Your task to perform on an android device: Empty the shopping cart on walmart.com. Add logitech g903 to the cart on walmart.com, then select checkout. Image 0: 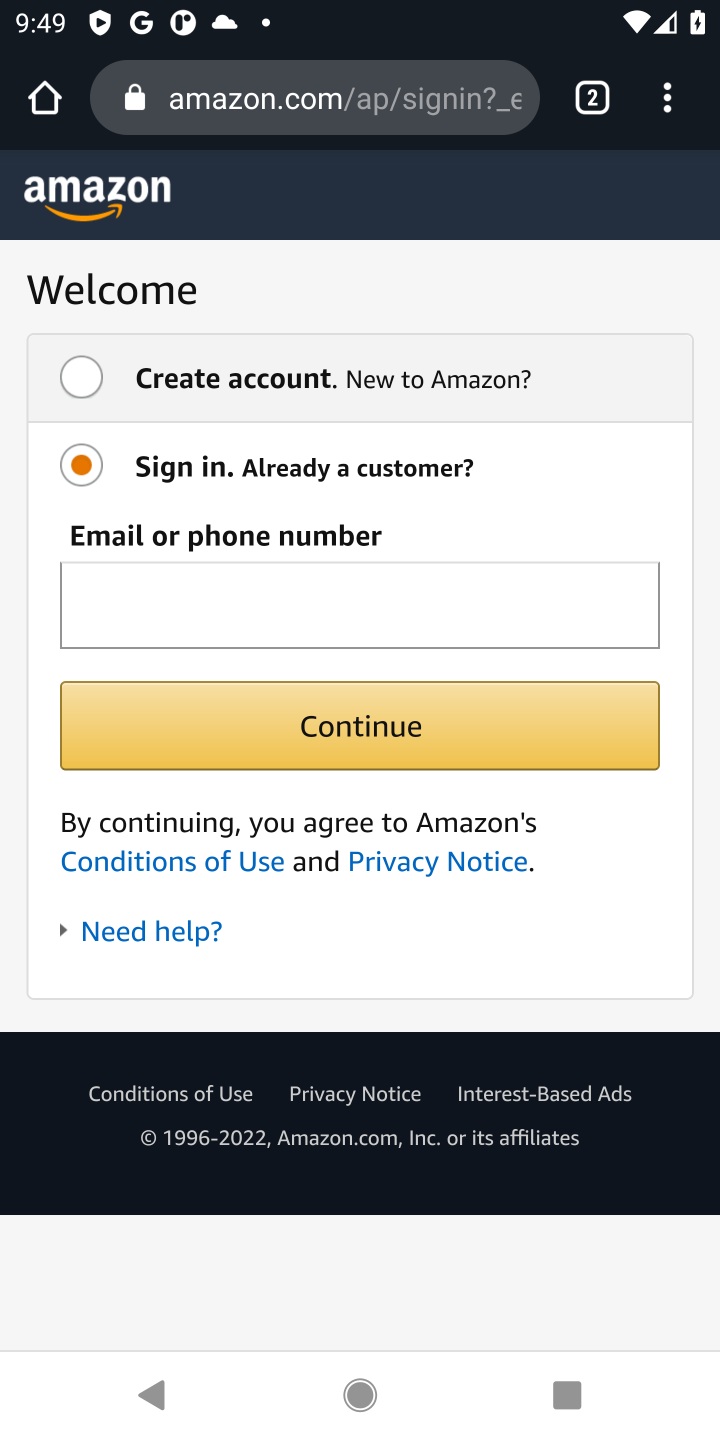
Step 0: click (262, 97)
Your task to perform on an android device: Empty the shopping cart on walmart.com. Add logitech g903 to the cart on walmart.com, then select checkout. Image 1: 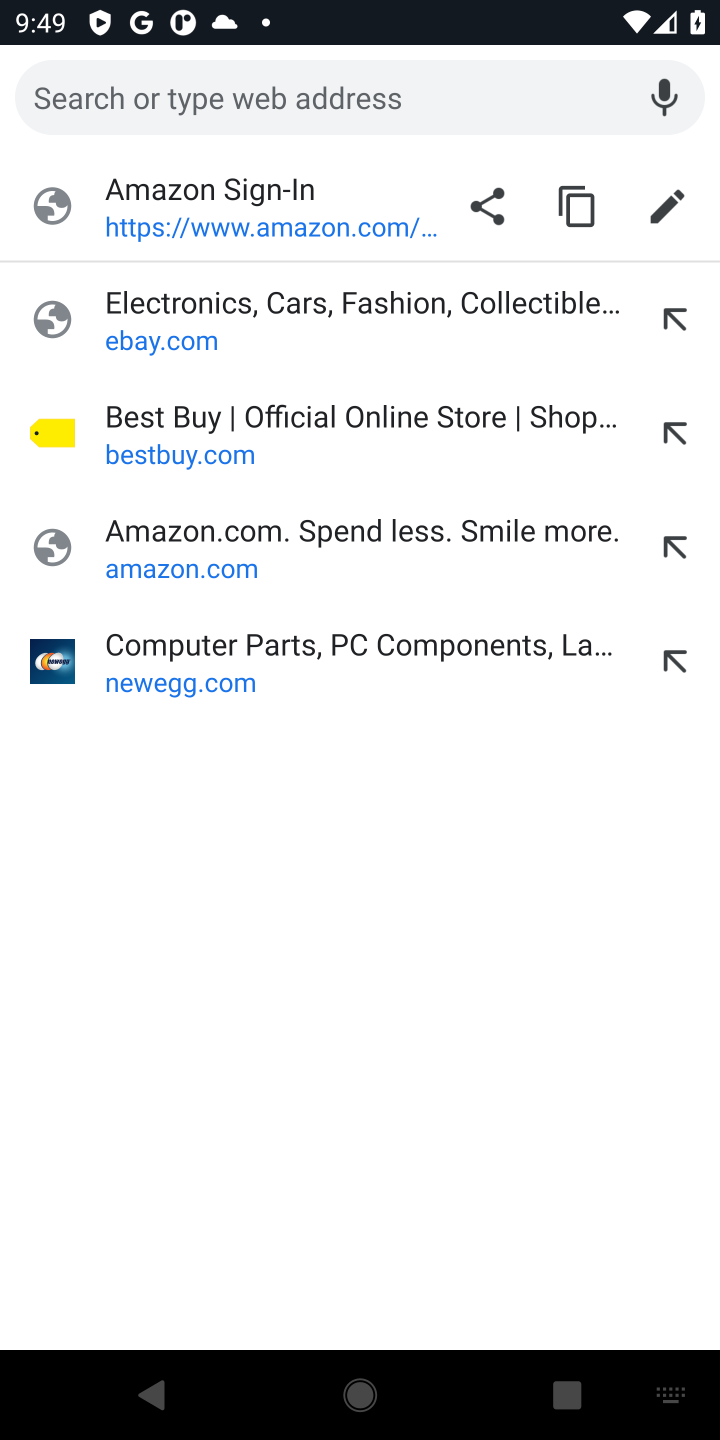
Step 1: type "walmart.com"
Your task to perform on an android device: Empty the shopping cart on walmart.com. Add logitech g903 to the cart on walmart.com, then select checkout. Image 2: 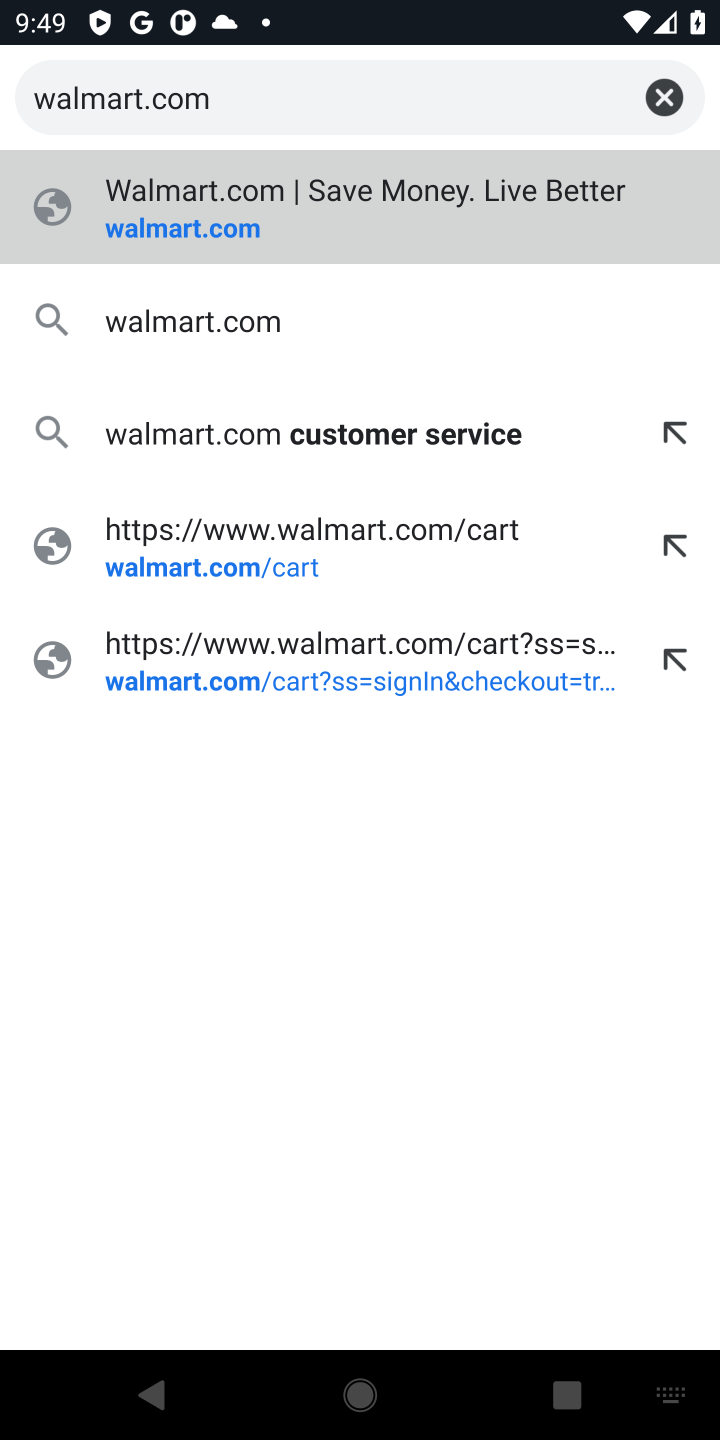
Step 2: press enter
Your task to perform on an android device: Empty the shopping cart on walmart.com. Add logitech g903 to the cart on walmart.com, then select checkout. Image 3: 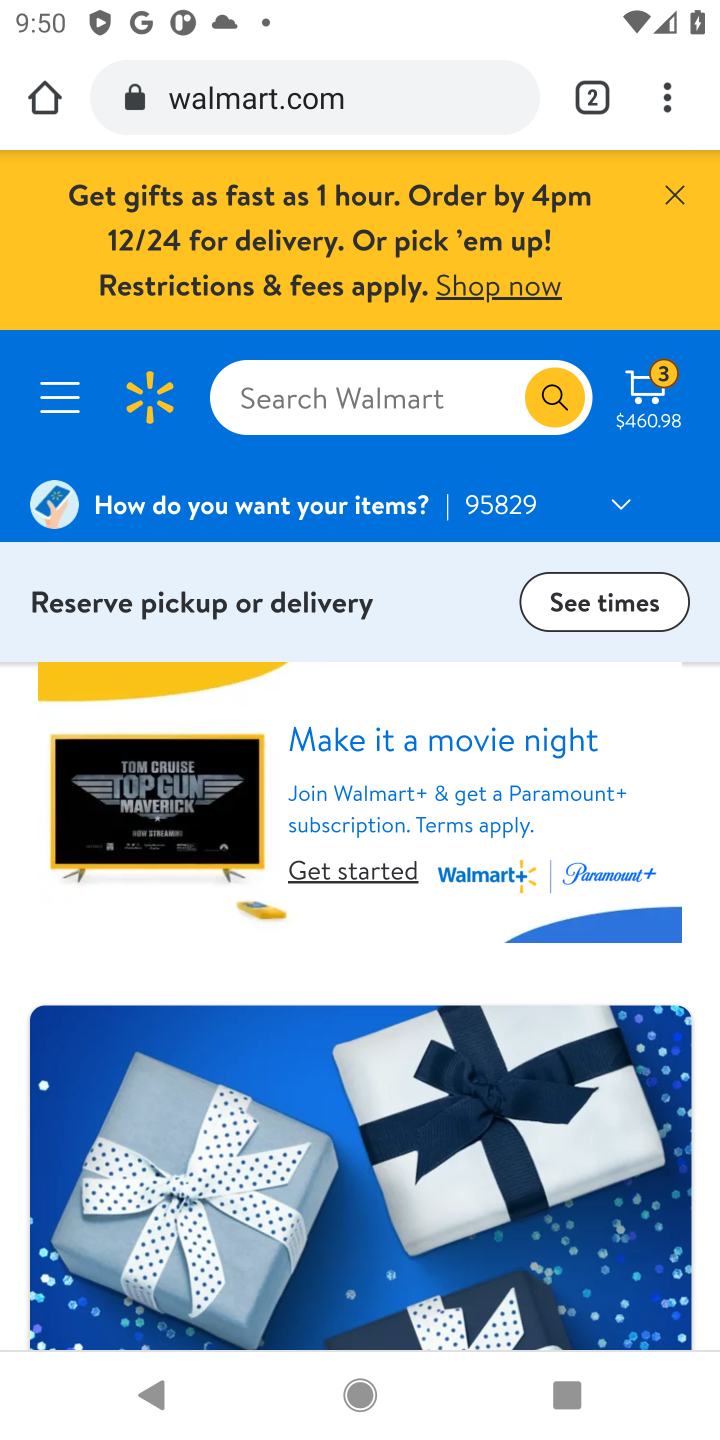
Step 3: click (636, 408)
Your task to perform on an android device: Empty the shopping cart on walmart.com. Add logitech g903 to the cart on walmart.com, then select checkout. Image 4: 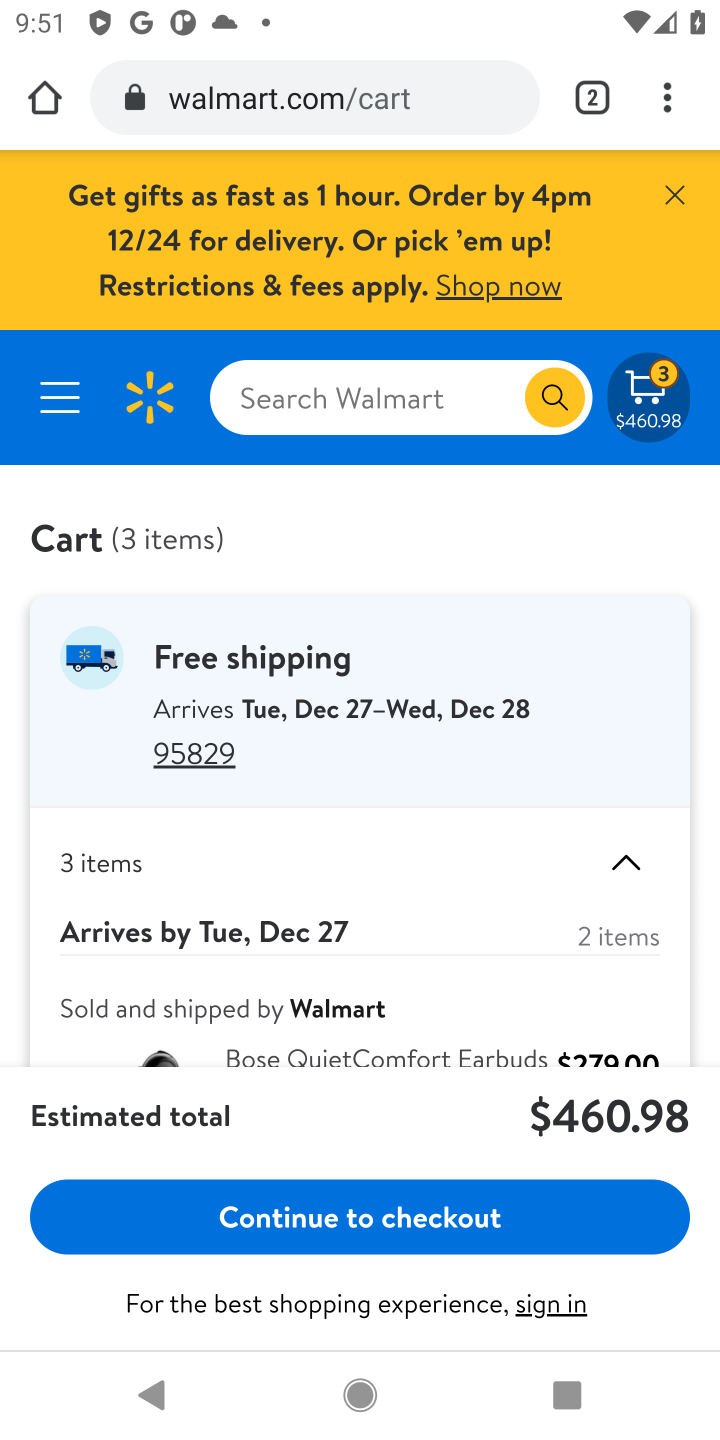
Step 4: drag from (558, 928) to (564, 520)
Your task to perform on an android device: Empty the shopping cart on walmart.com. Add logitech g903 to the cart on walmart.com, then select checkout. Image 5: 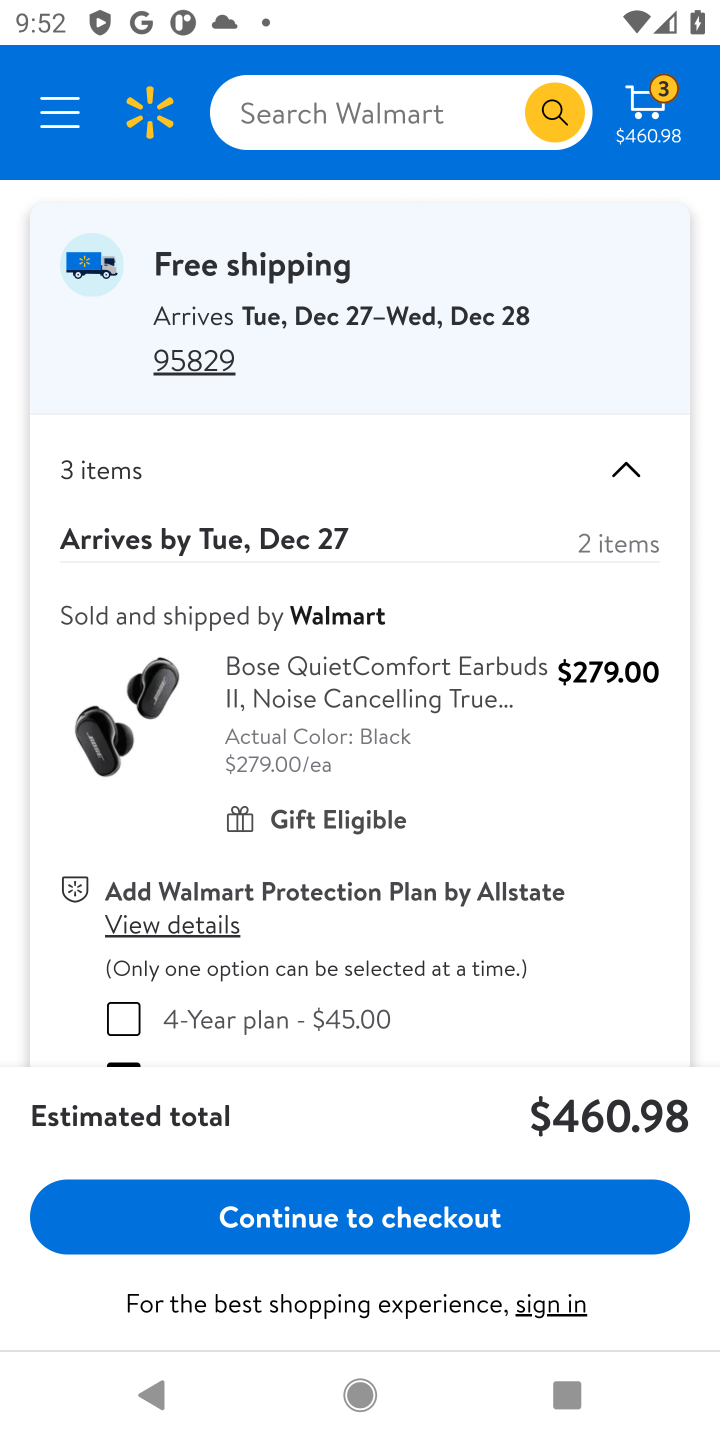
Step 5: drag from (318, 1052) to (315, 588)
Your task to perform on an android device: Empty the shopping cart on walmart.com. Add logitech g903 to the cart on walmart.com, then select checkout. Image 6: 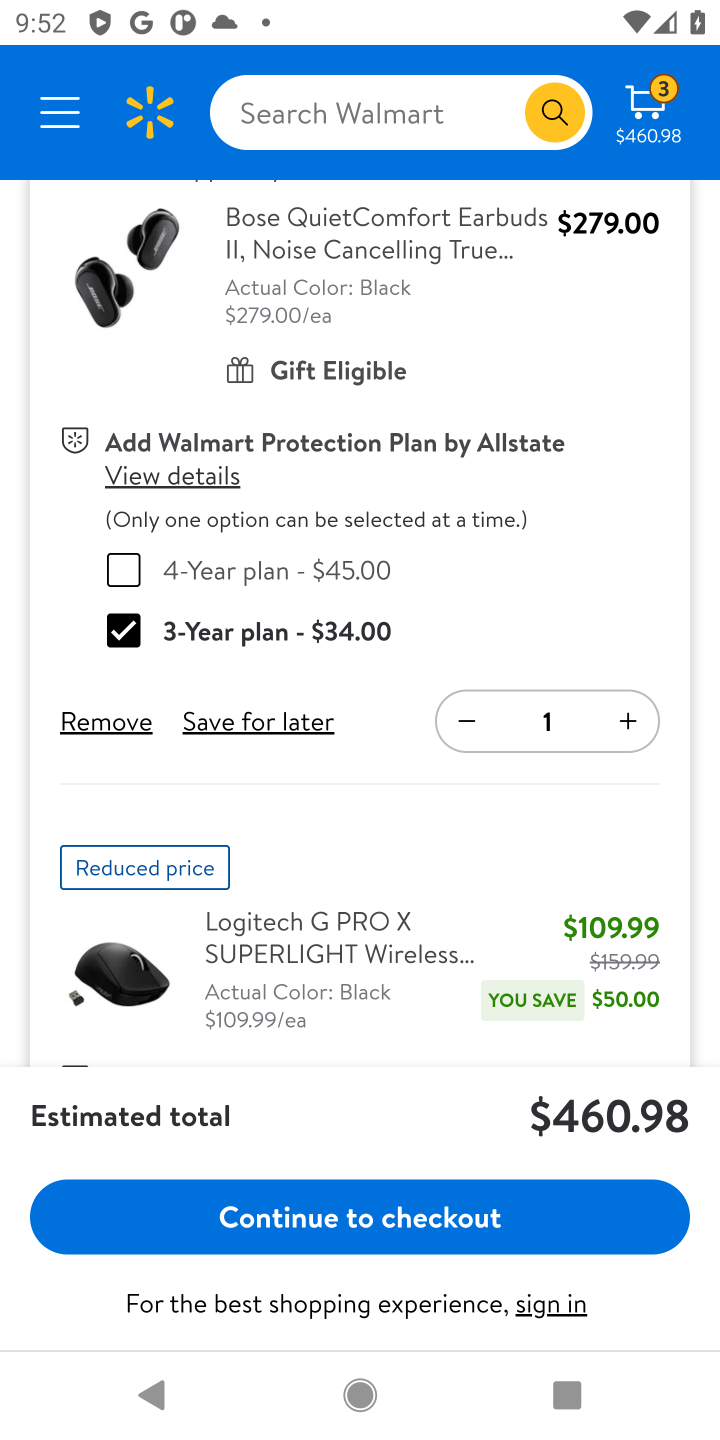
Step 6: click (78, 729)
Your task to perform on an android device: Empty the shopping cart on walmart.com. Add logitech g903 to the cart on walmart.com, then select checkout. Image 7: 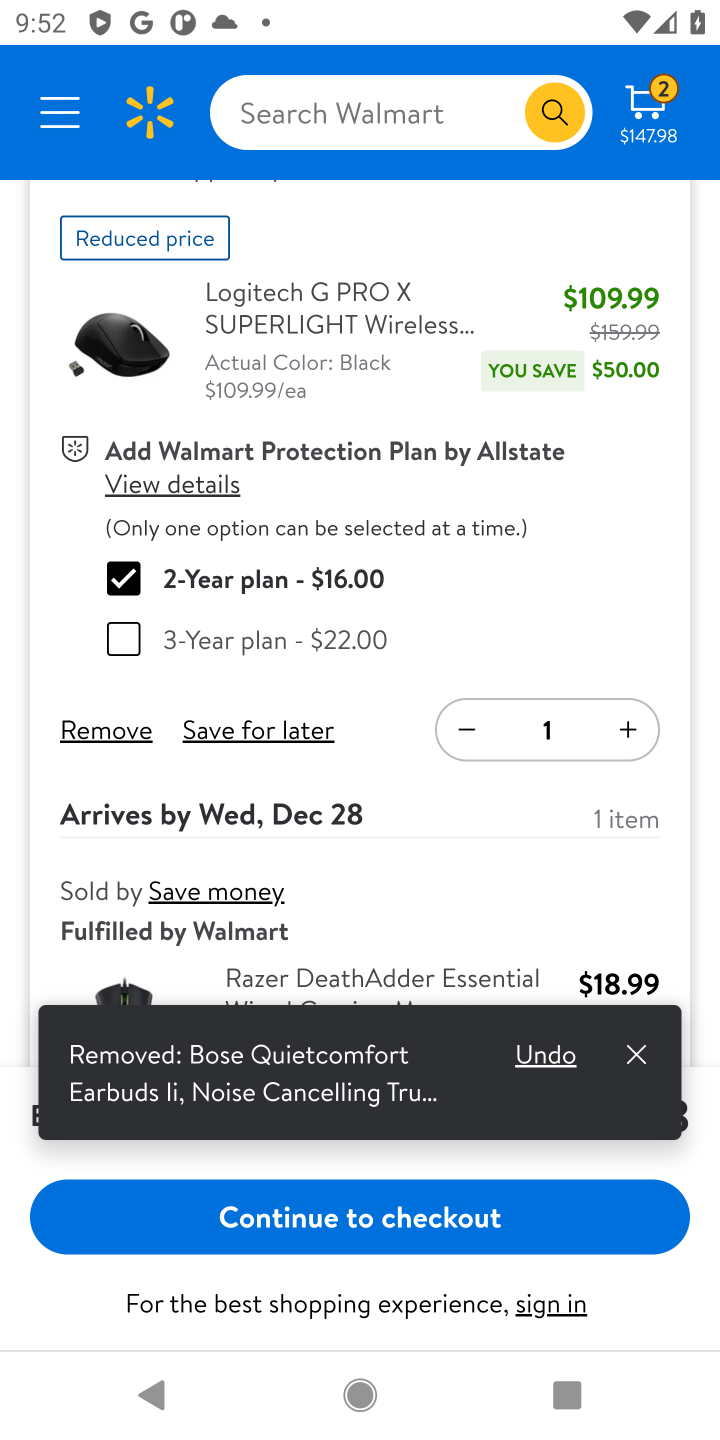
Step 7: click (108, 742)
Your task to perform on an android device: Empty the shopping cart on walmart.com. Add logitech g903 to the cart on walmart.com, then select checkout. Image 8: 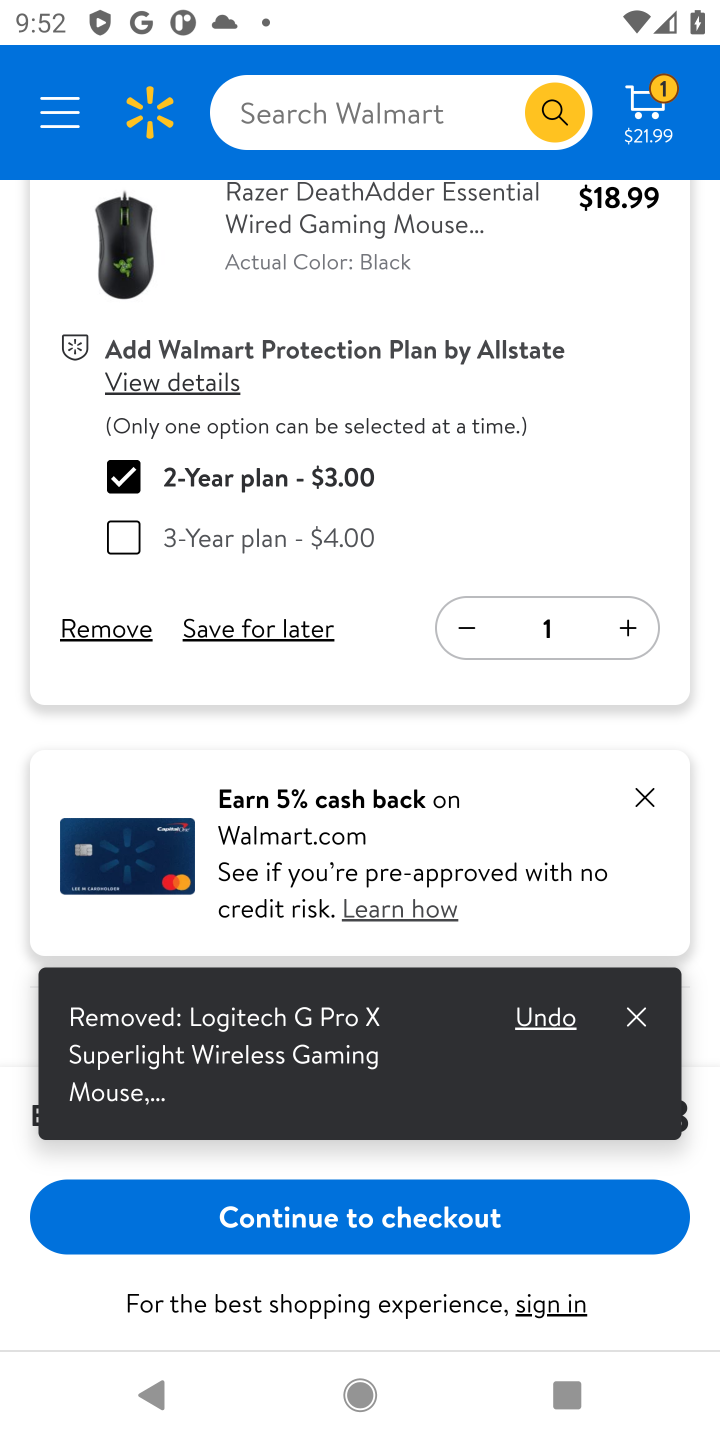
Step 8: click (102, 631)
Your task to perform on an android device: Empty the shopping cart on walmart.com. Add logitech g903 to the cart on walmart.com, then select checkout. Image 9: 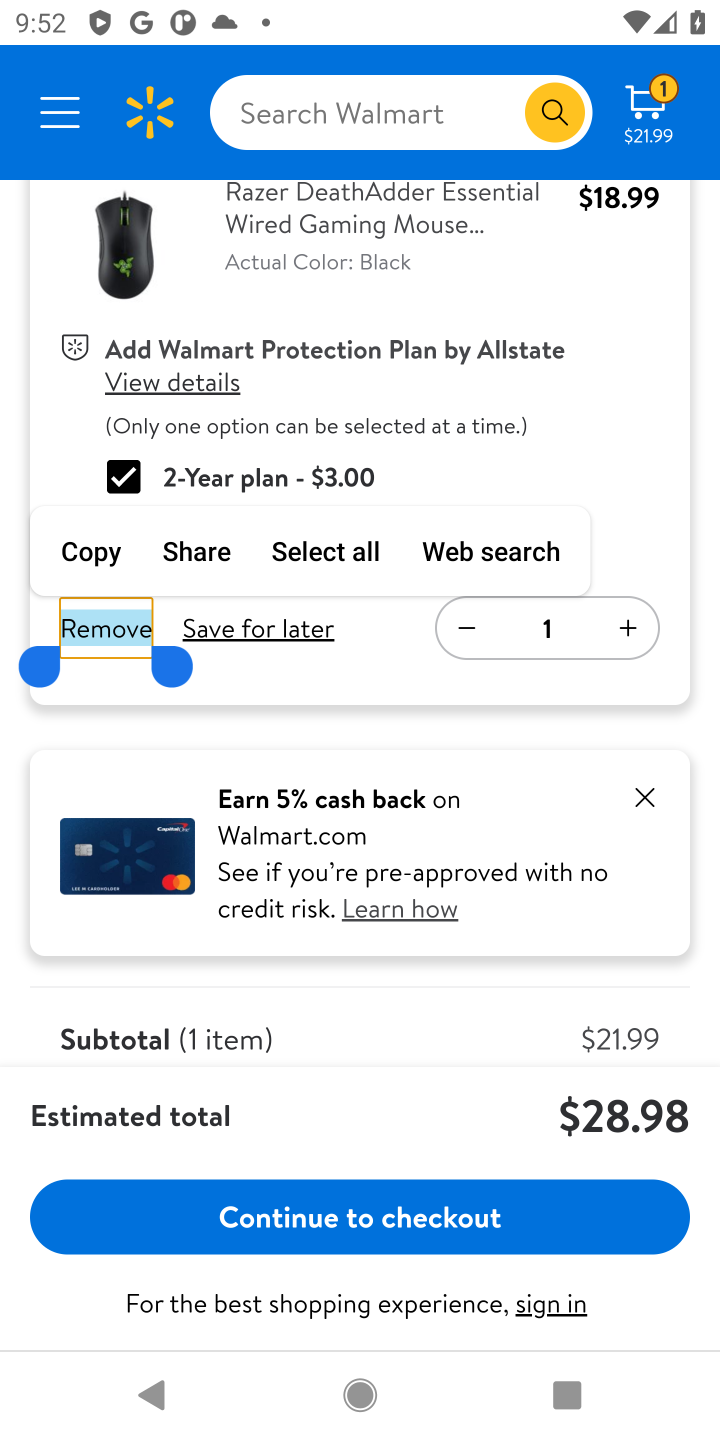
Step 9: click (102, 631)
Your task to perform on an android device: Empty the shopping cart on walmart.com. Add logitech g903 to the cart on walmart.com, then select checkout. Image 10: 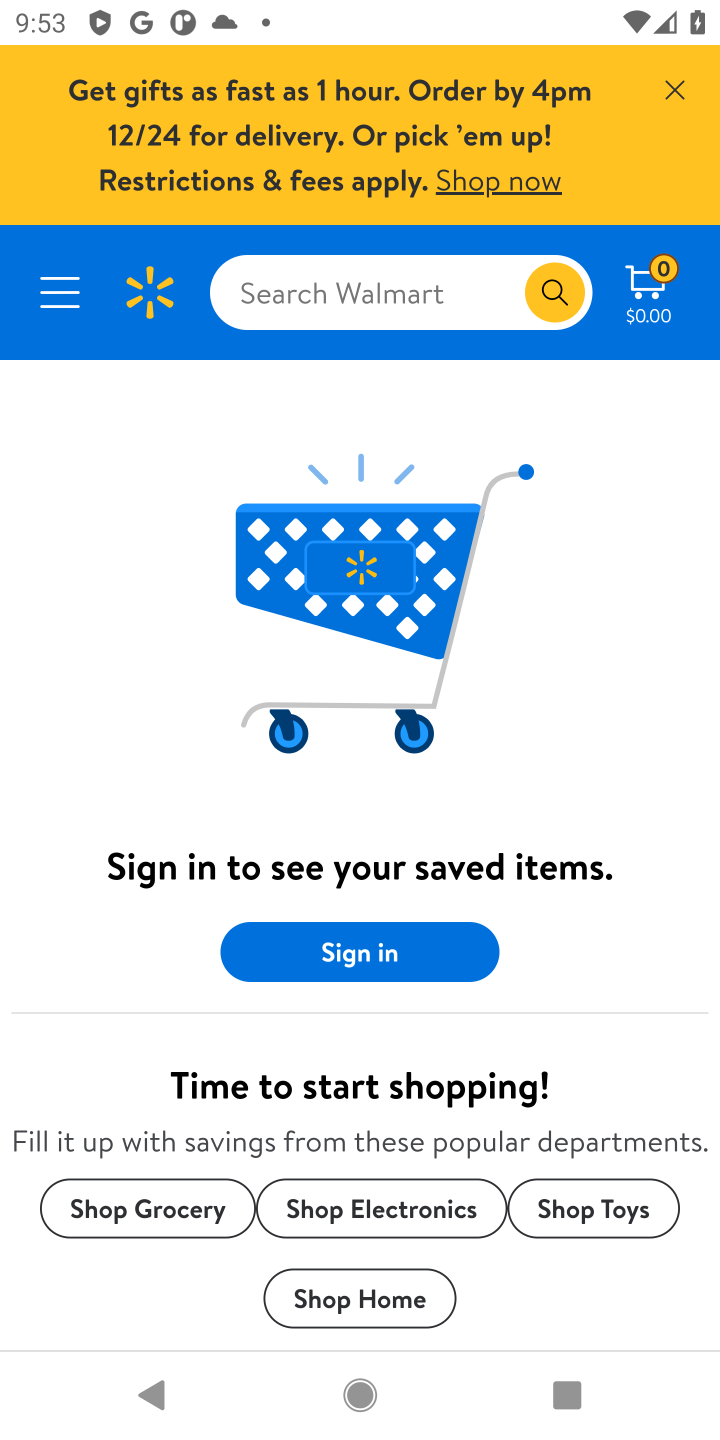
Step 10: click (671, 98)
Your task to perform on an android device: Empty the shopping cart on walmart.com. Add logitech g903 to the cart on walmart.com, then select checkout. Image 11: 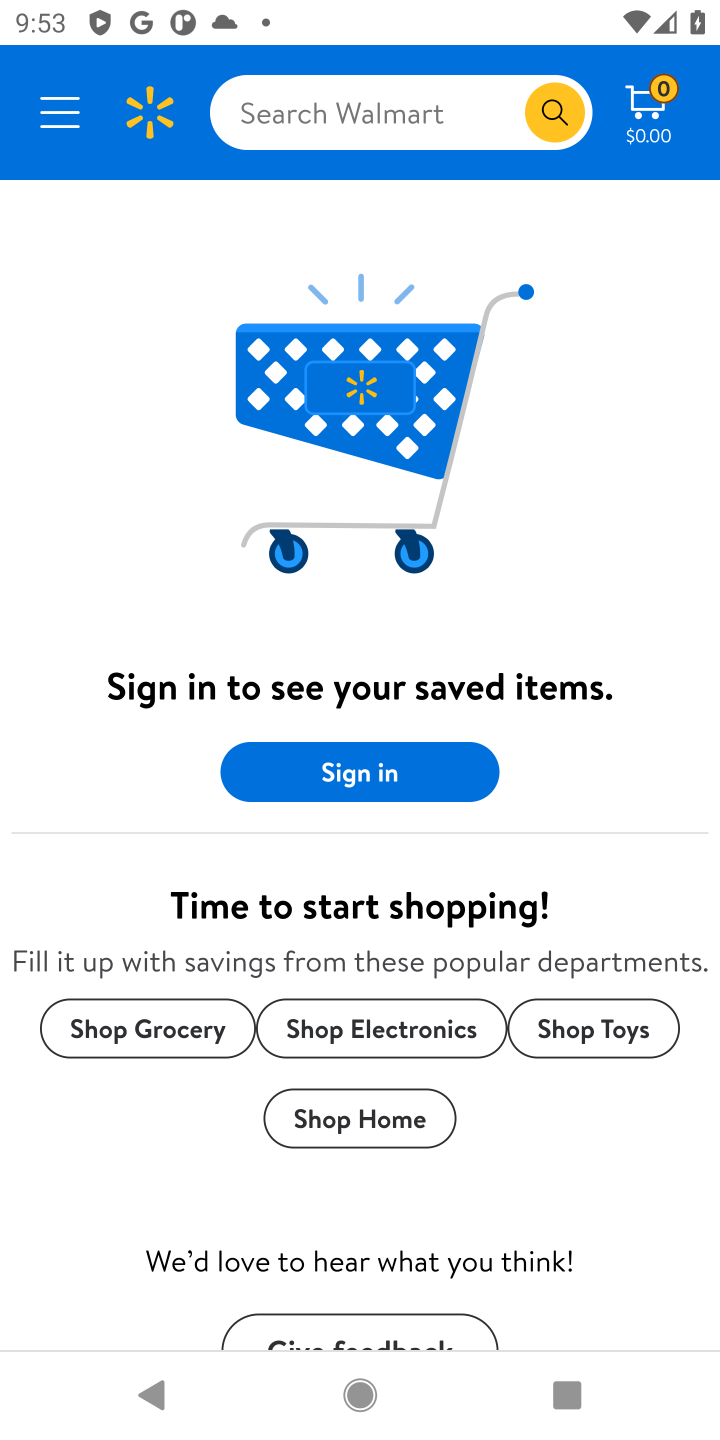
Step 11: click (328, 105)
Your task to perform on an android device: Empty the shopping cart on walmart.com. Add logitech g903 to the cart on walmart.com, then select checkout. Image 12: 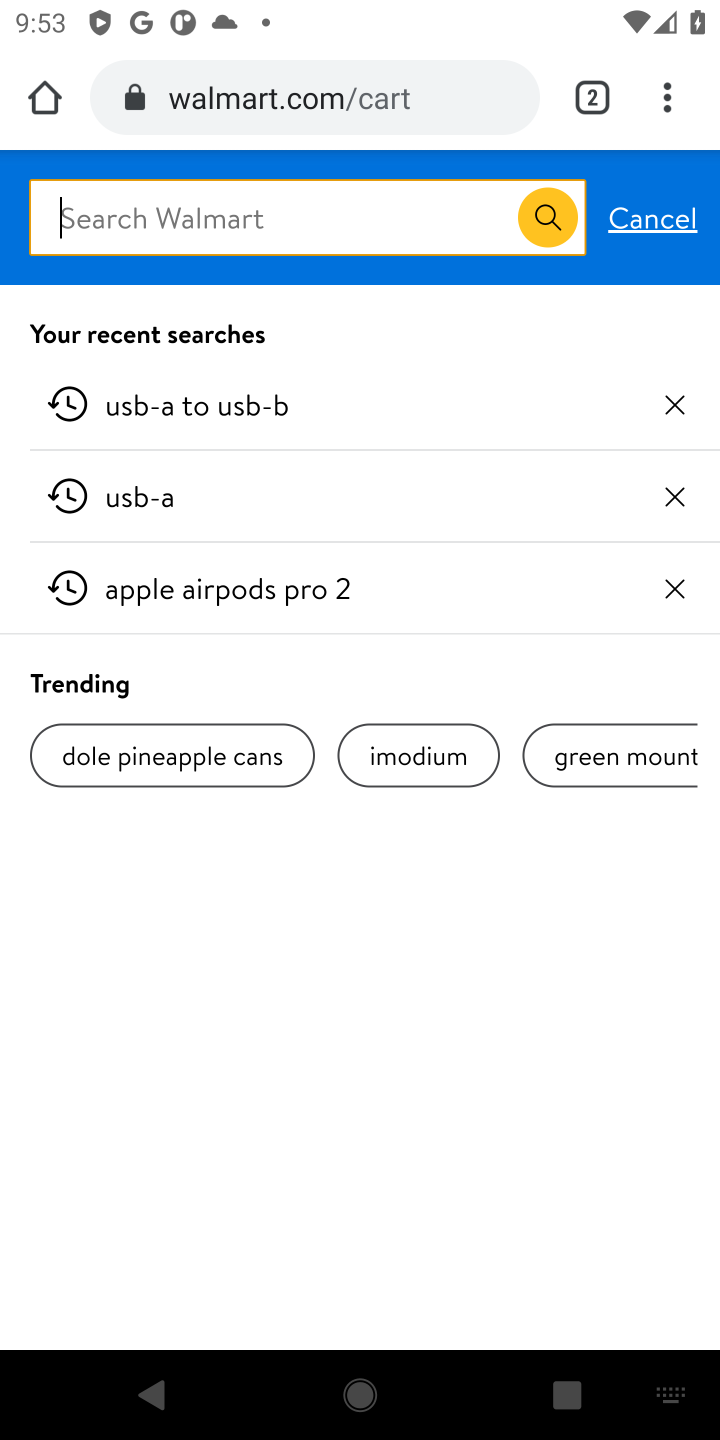
Step 12: type "logitech g903"
Your task to perform on an android device: Empty the shopping cart on walmart.com. Add logitech g903 to the cart on walmart.com, then select checkout. Image 13: 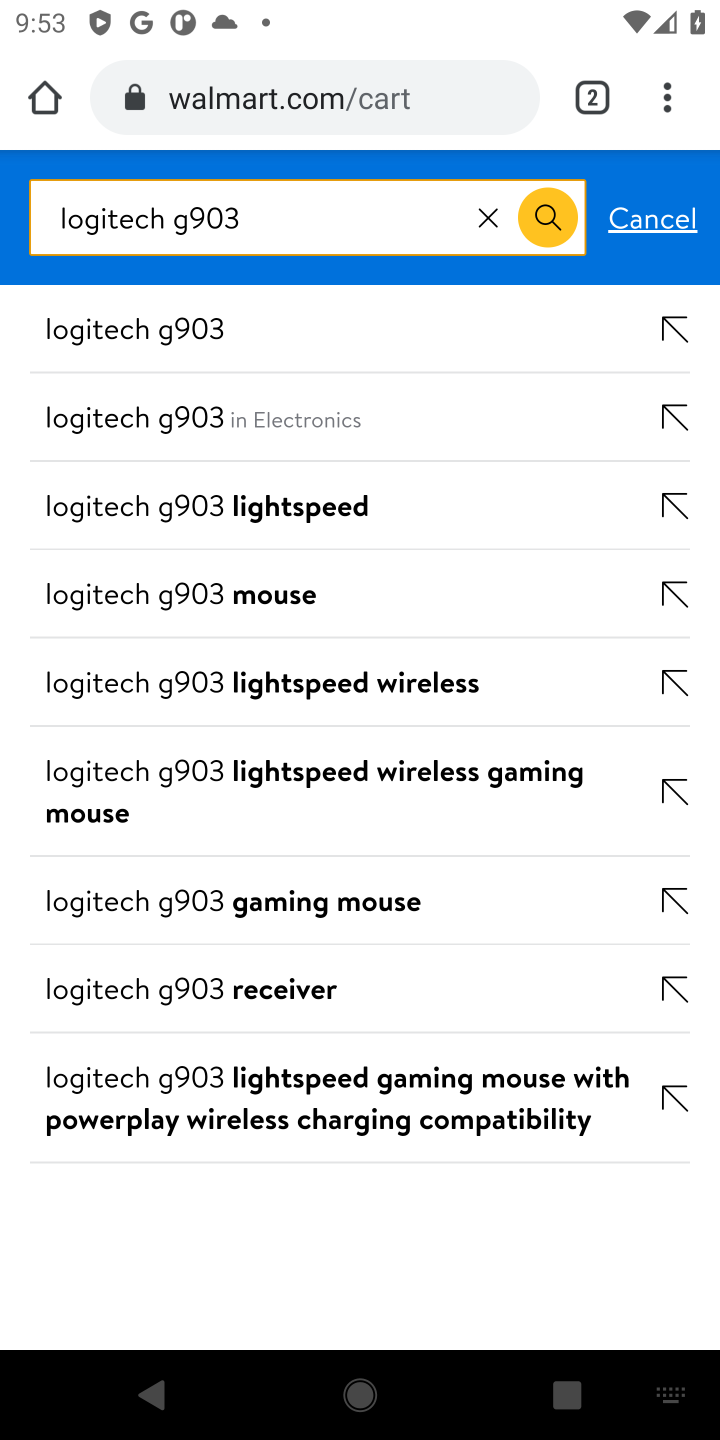
Step 13: click (542, 228)
Your task to perform on an android device: Empty the shopping cart on walmart.com. Add logitech g903 to the cart on walmart.com, then select checkout. Image 14: 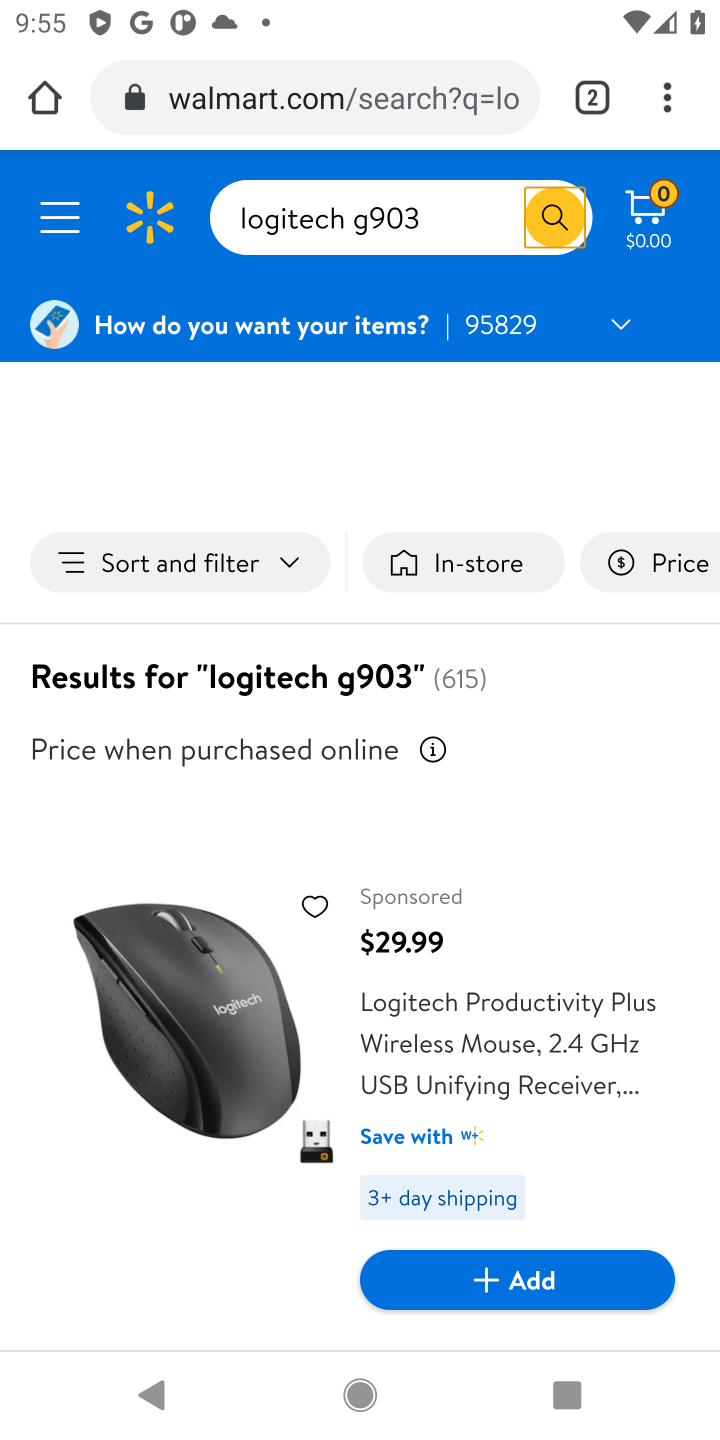
Step 14: click (500, 1279)
Your task to perform on an android device: Empty the shopping cart on walmart.com. Add logitech g903 to the cart on walmart.com, then select checkout. Image 15: 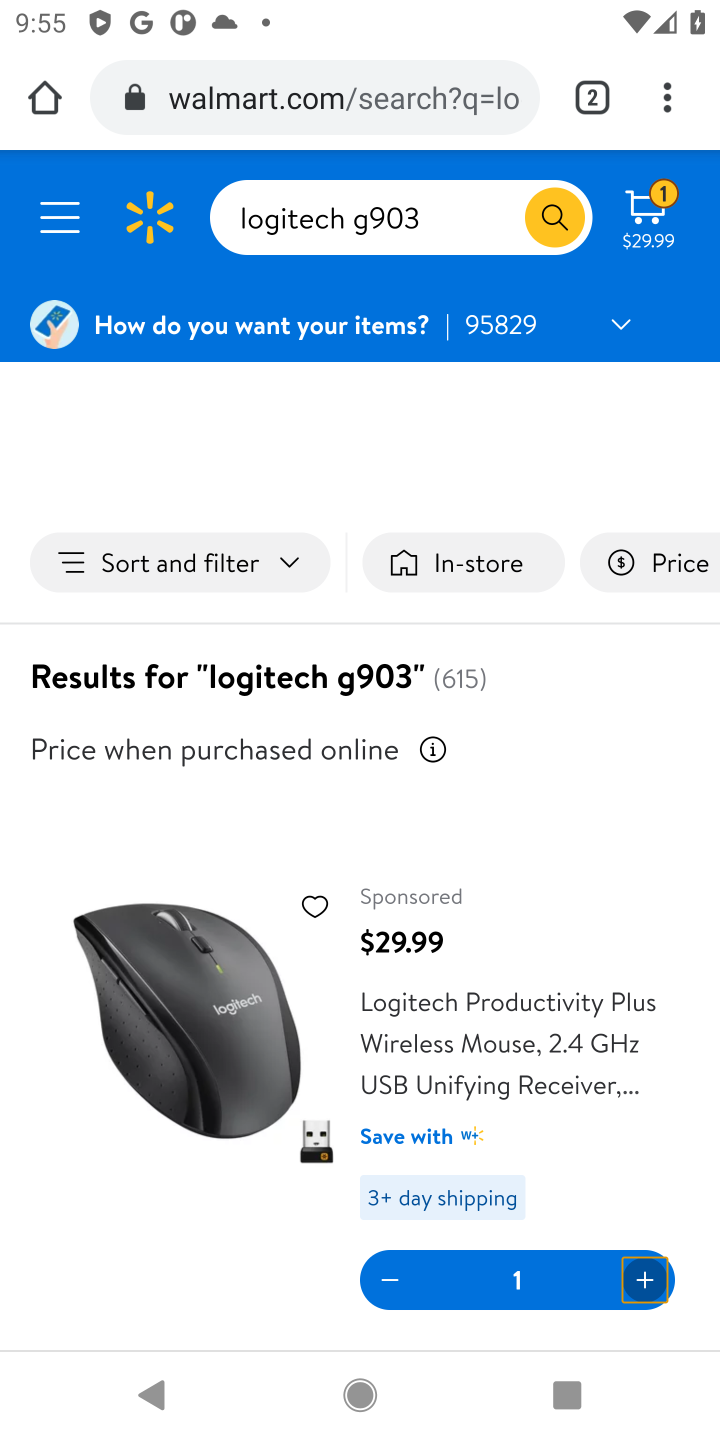
Step 15: click (391, 1287)
Your task to perform on an android device: Empty the shopping cart on walmart.com. Add logitech g903 to the cart on walmart.com, then select checkout. Image 16: 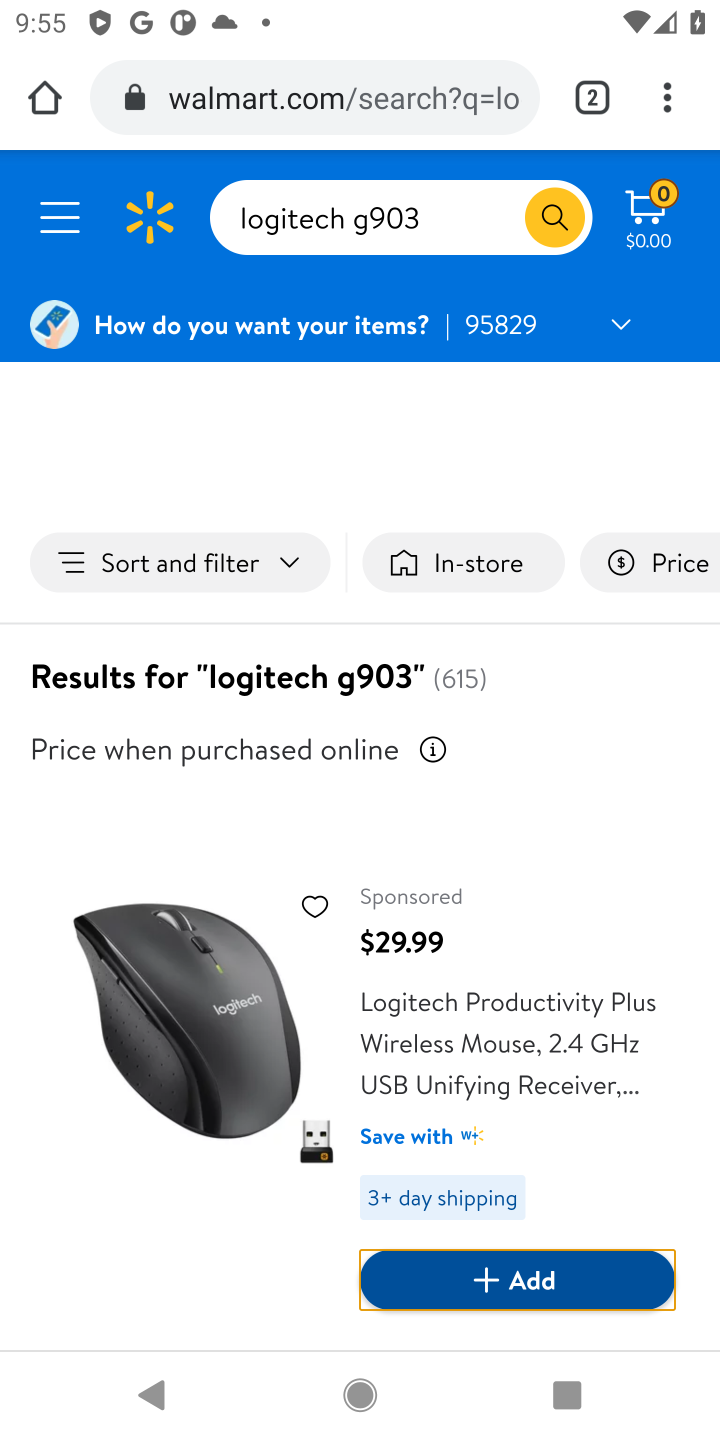
Step 16: drag from (496, 1177) to (407, 464)
Your task to perform on an android device: Empty the shopping cart on walmart.com. Add logitech g903 to the cart on walmart.com, then select checkout. Image 17: 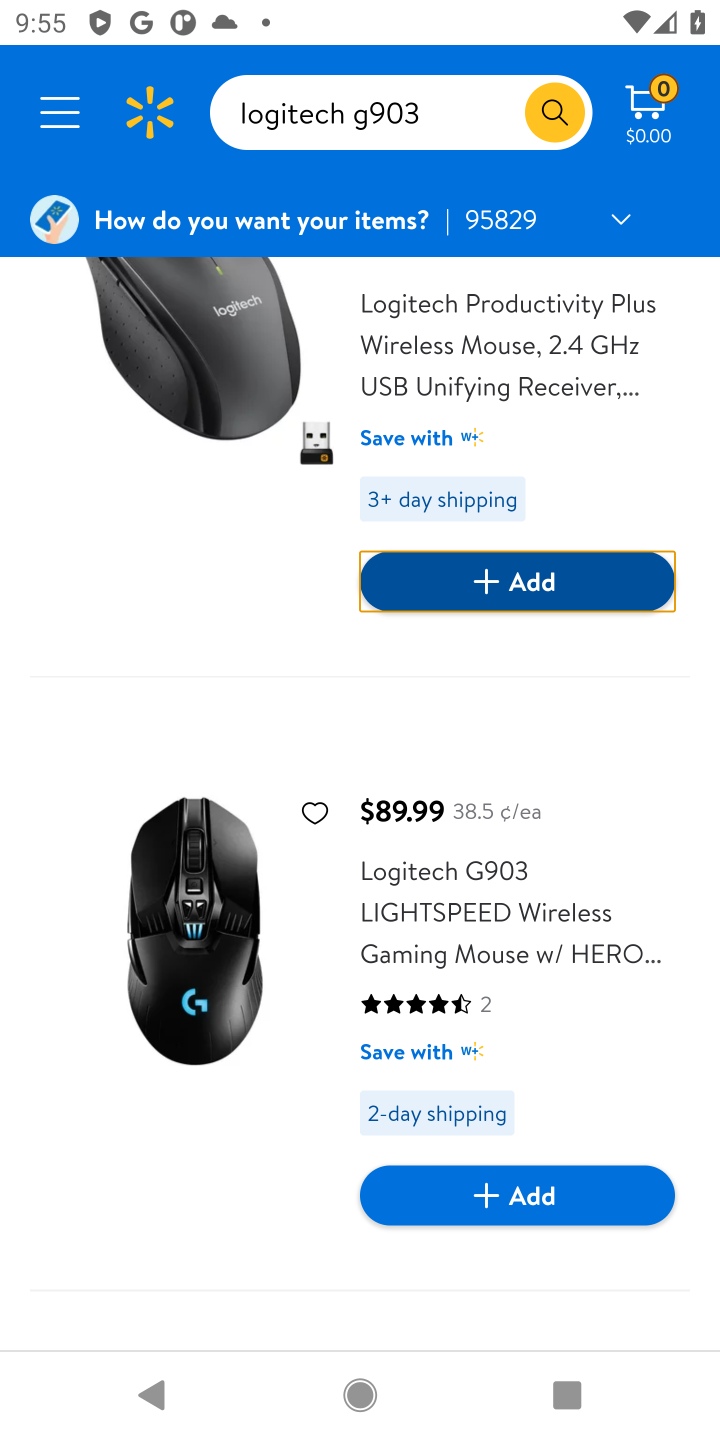
Step 17: click (499, 1200)
Your task to perform on an android device: Empty the shopping cart on walmart.com. Add logitech g903 to the cart on walmart.com, then select checkout. Image 18: 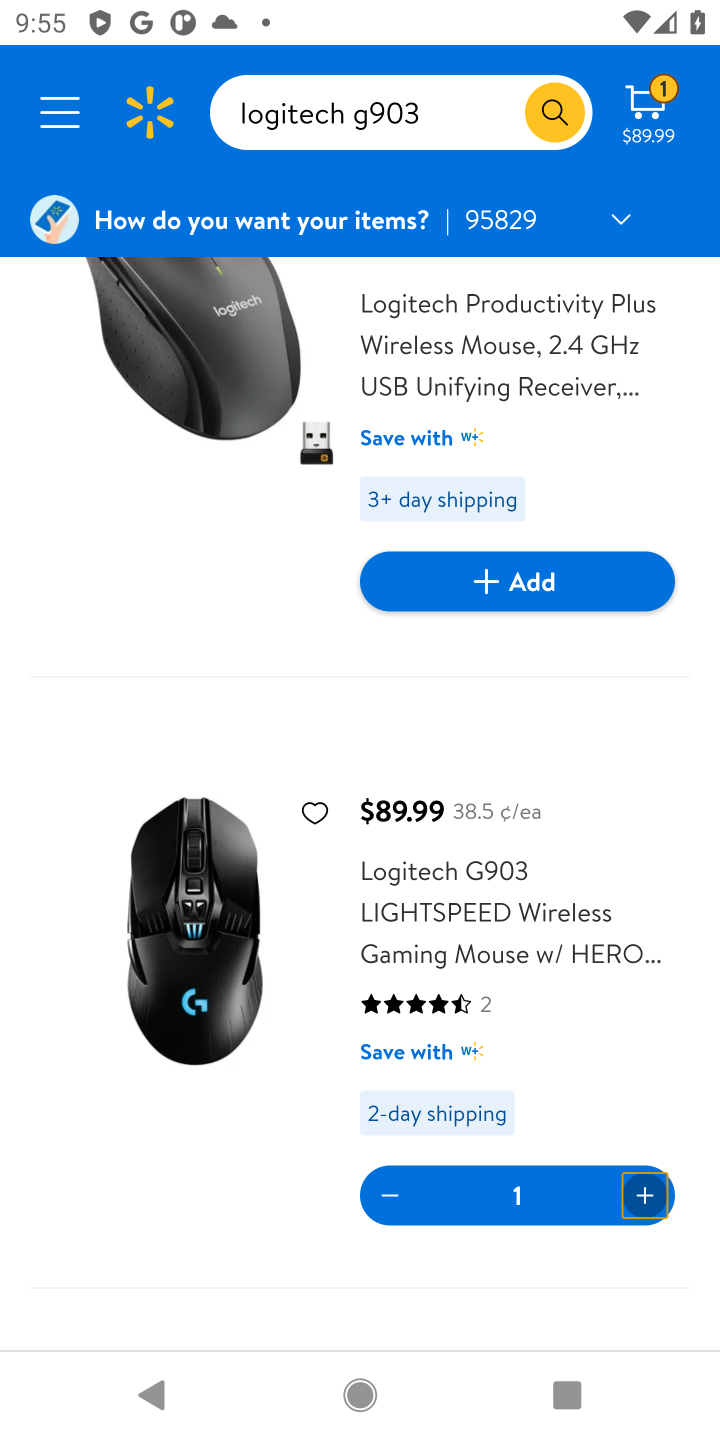
Step 18: click (654, 101)
Your task to perform on an android device: Empty the shopping cart on walmart.com. Add logitech g903 to the cart on walmart.com, then select checkout. Image 19: 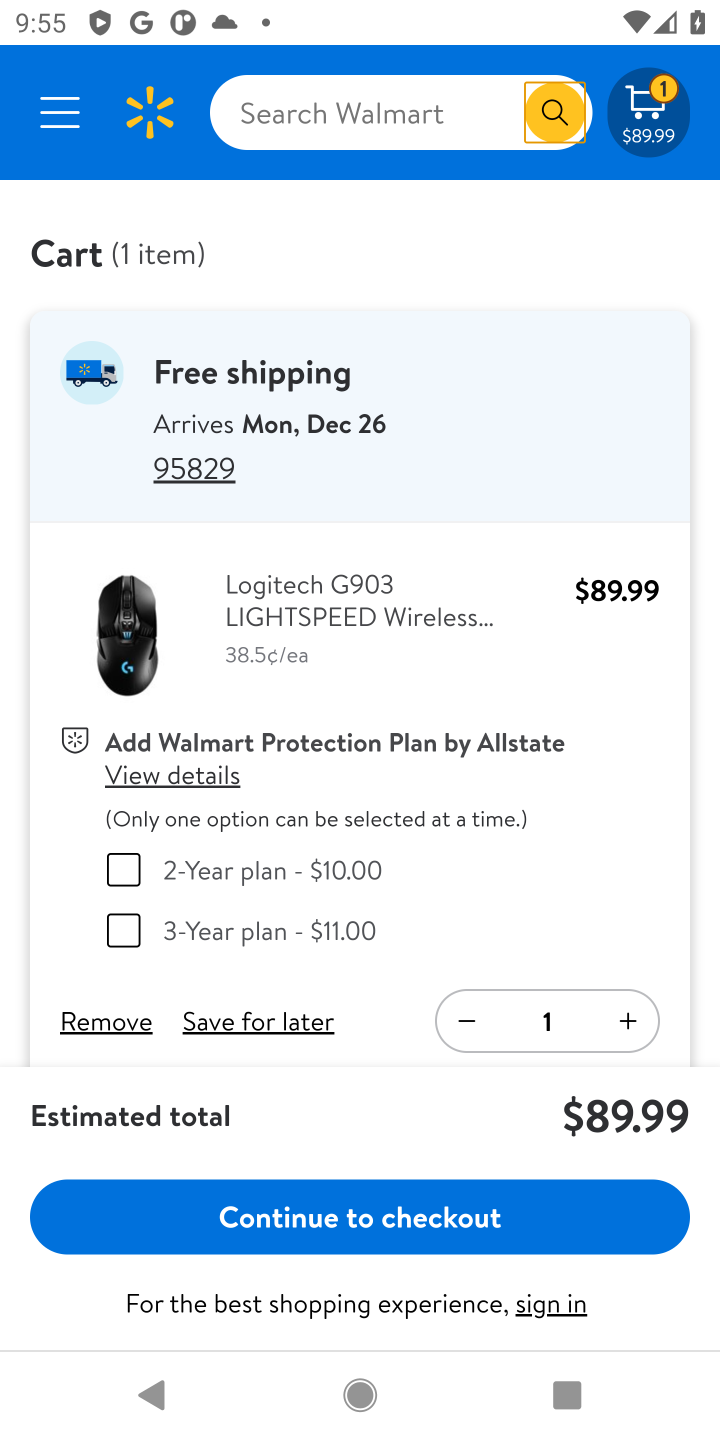
Step 19: click (412, 1215)
Your task to perform on an android device: Empty the shopping cart on walmart.com. Add logitech g903 to the cart on walmart.com, then select checkout. Image 20: 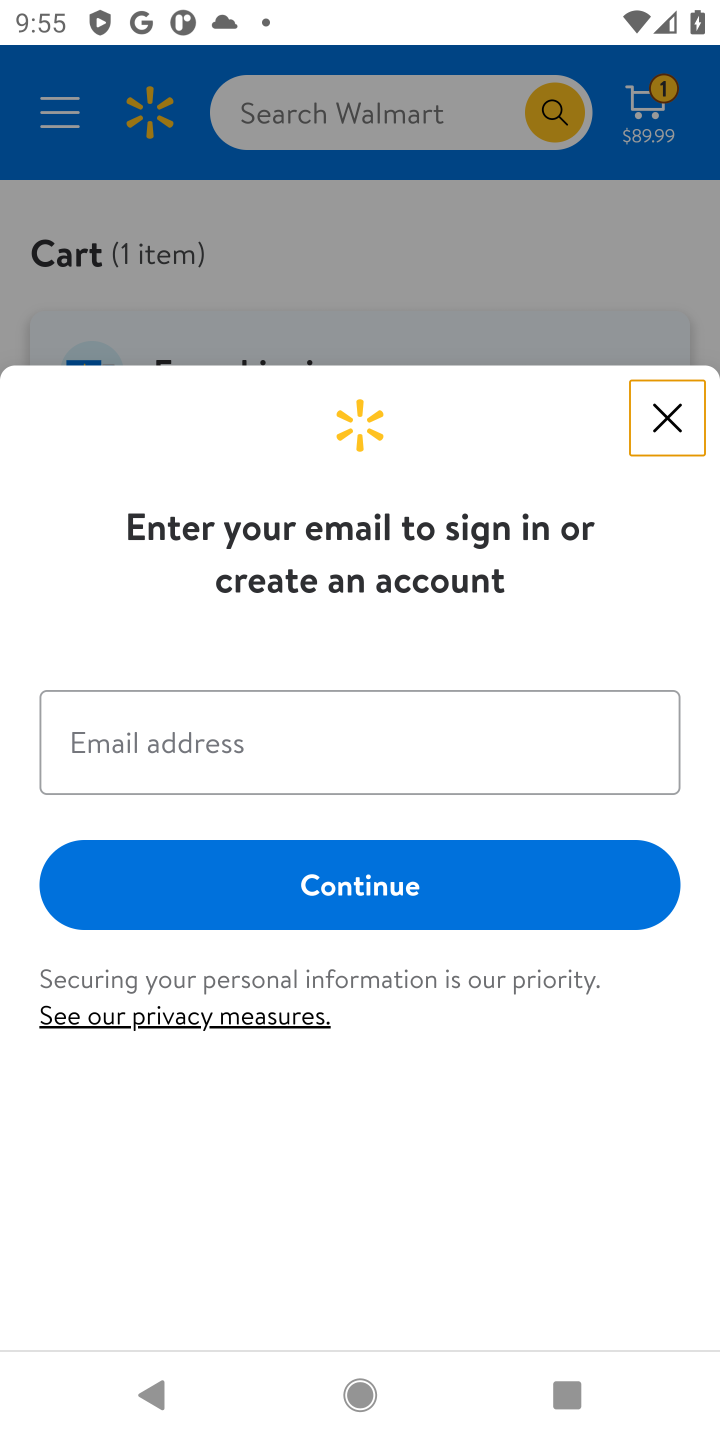
Step 20: task complete